Your task to perform on an android device: turn off location Image 0: 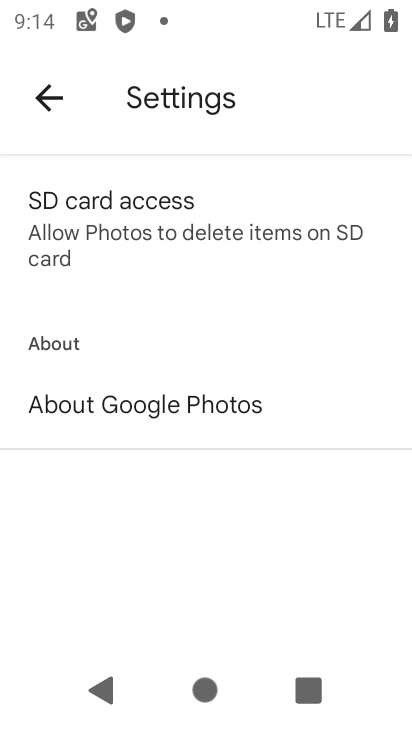
Step 0: press home button
Your task to perform on an android device: turn off location Image 1: 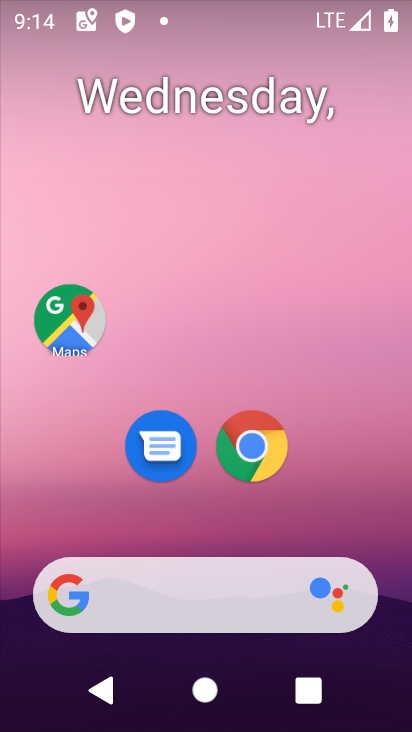
Step 1: drag from (181, 594) to (289, 76)
Your task to perform on an android device: turn off location Image 2: 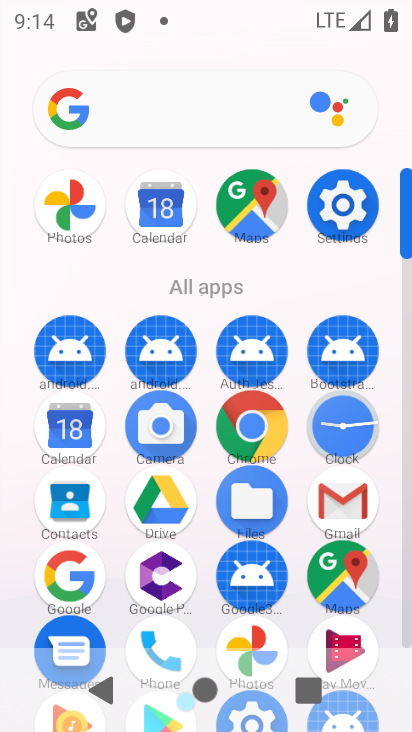
Step 2: click (342, 216)
Your task to perform on an android device: turn off location Image 3: 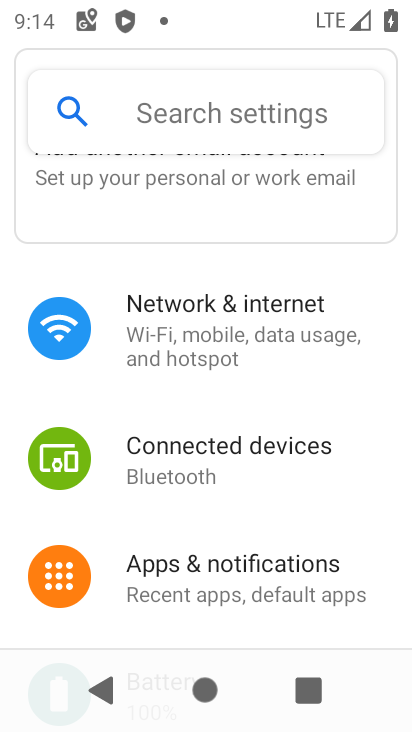
Step 3: drag from (254, 528) to (329, 174)
Your task to perform on an android device: turn off location Image 4: 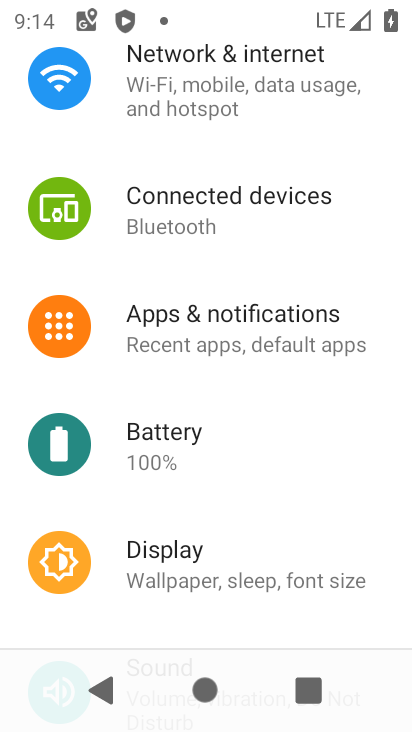
Step 4: drag from (255, 511) to (347, 124)
Your task to perform on an android device: turn off location Image 5: 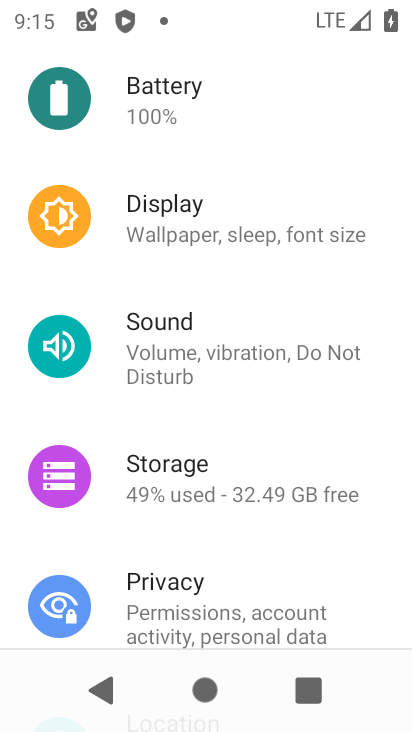
Step 5: drag from (244, 547) to (328, 133)
Your task to perform on an android device: turn off location Image 6: 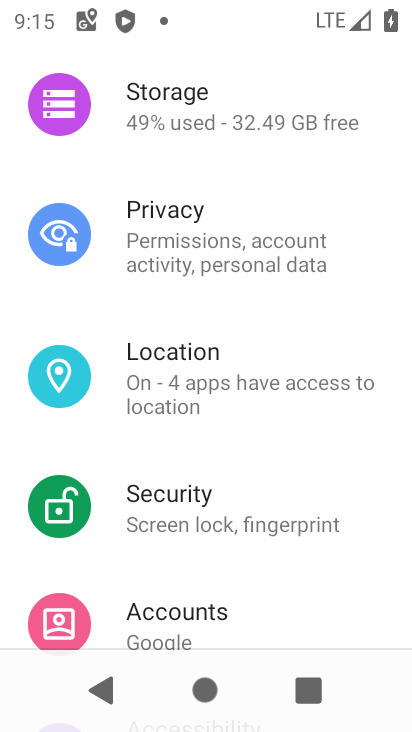
Step 6: click (210, 376)
Your task to perform on an android device: turn off location Image 7: 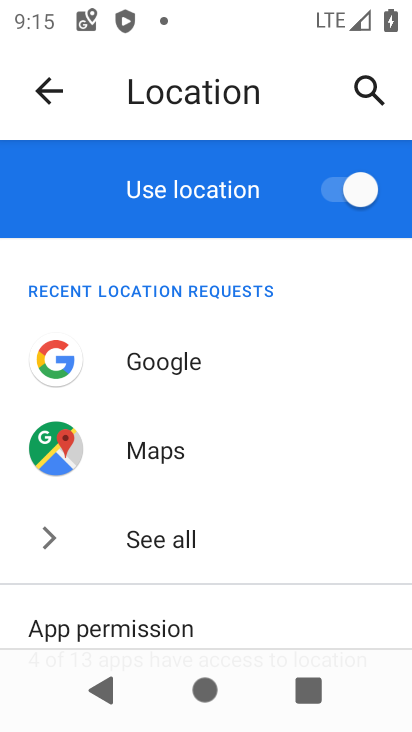
Step 7: click (342, 189)
Your task to perform on an android device: turn off location Image 8: 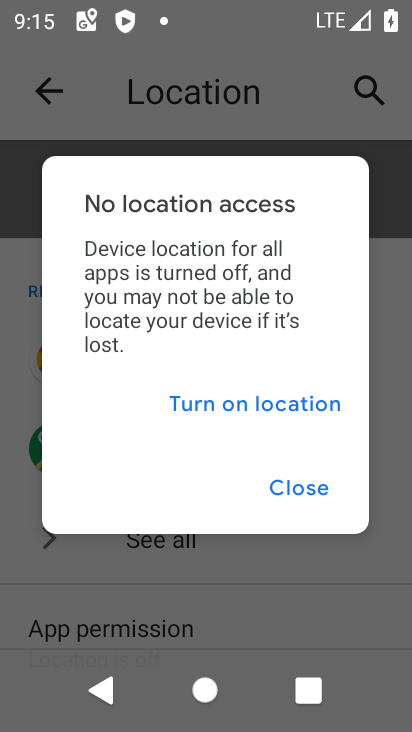
Step 8: click (298, 496)
Your task to perform on an android device: turn off location Image 9: 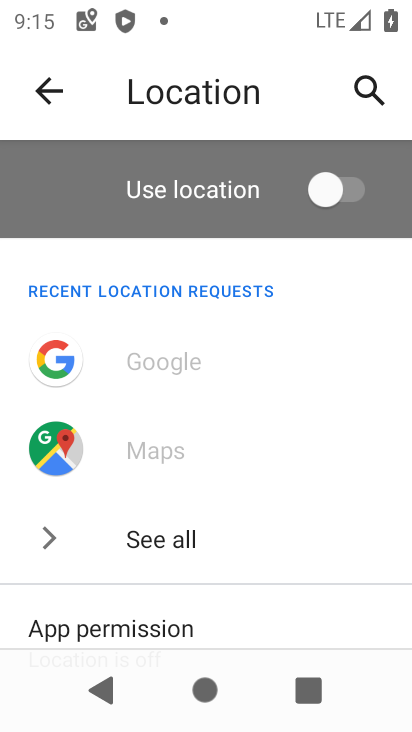
Step 9: task complete